Your task to perform on an android device: What's on my calendar tomorrow? Image 0: 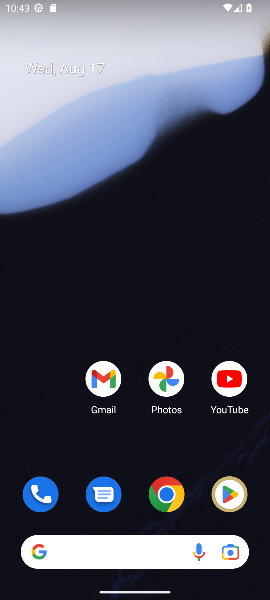
Step 0: drag from (131, 462) to (160, 31)
Your task to perform on an android device: What's on my calendar tomorrow? Image 1: 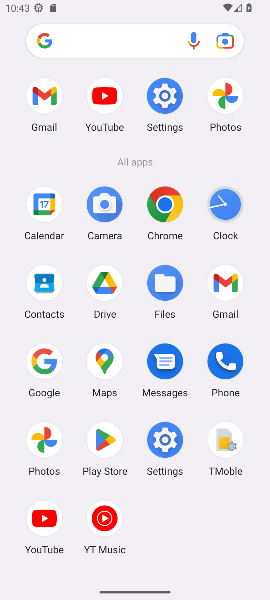
Step 1: click (53, 220)
Your task to perform on an android device: What's on my calendar tomorrow? Image 2: 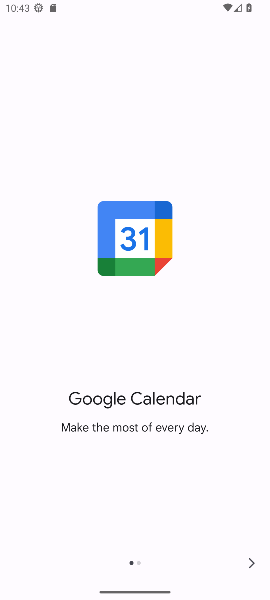
Step 2: click (244, 554)
Your task to perform on an android device: What's on my calendar tomorrow? Image 3: 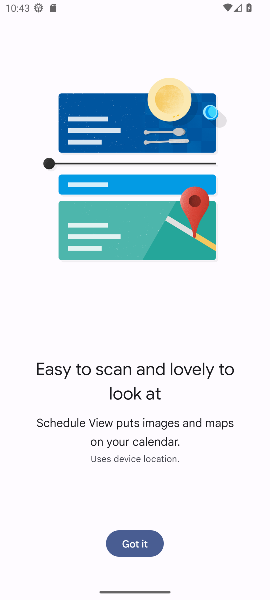
Step 3: click (122, 545)
Your task to perform on an android device: What's on my calendar tomorrow? Image 4: 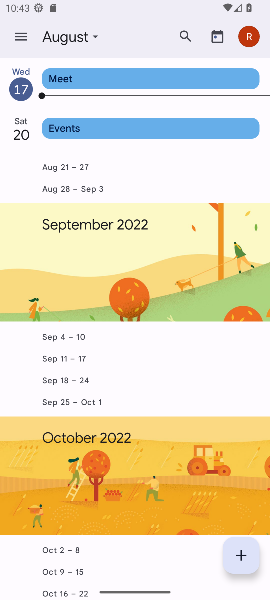
Step 4: click (17, 28)
Your task to perform on an android device: What's on my calendar tomorrow? Image 5: 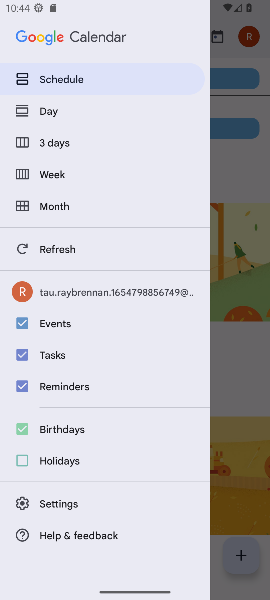
Step 5: click (57, 114)
Your task to perform on an android device: What's on my calendar tomorrow? Image 6: 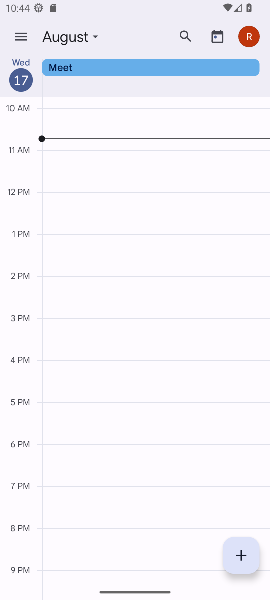
Step 6: task complete